Your task to perform on an android device: move a message to another label in the gmail app Image 0: 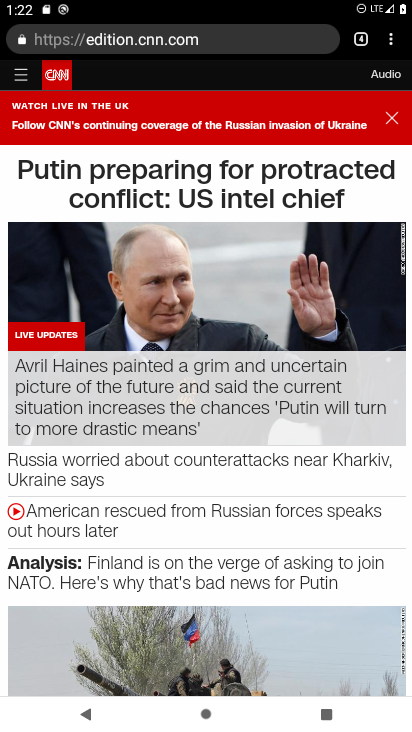
Step 0: press home button
Your task to perform on an android device: move a message to another label in the gmail app Image 1: 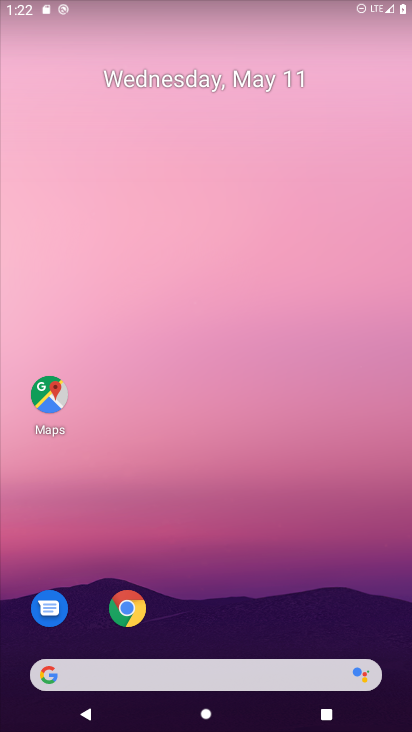
Step 1: drag from (303, 588) to (207, 56)
Your task to perform on an android device: move a message to another label in the gmail app Image 2: 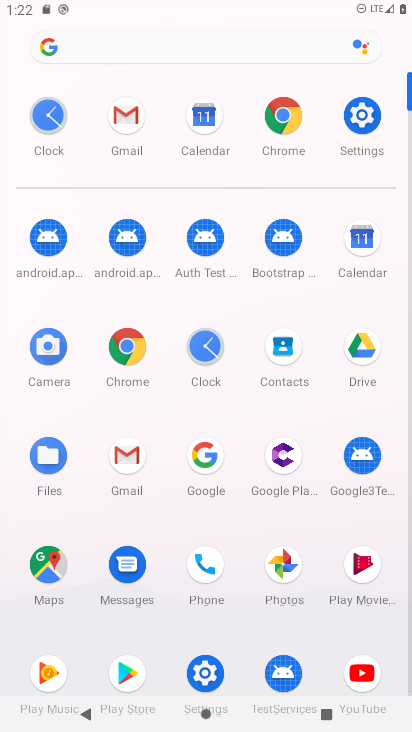
Step 2: click (133, 110)
Your task to perform on an android device: move a message to another label in the gmail app Image 3: 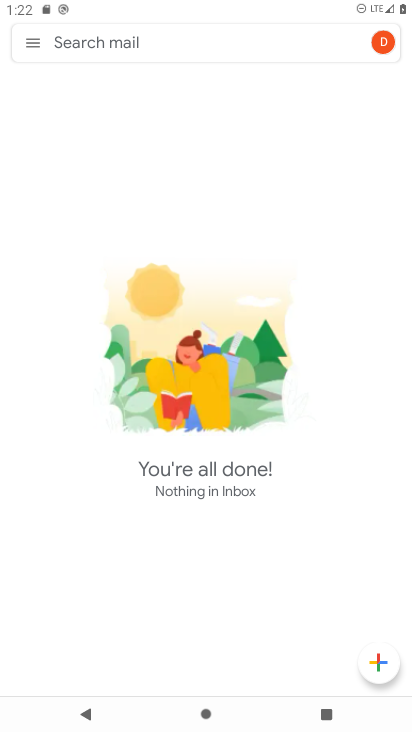
Step 3: click (25, 36)
Your task to perform on an android device: move a message to another label in the gmail app Image 4: 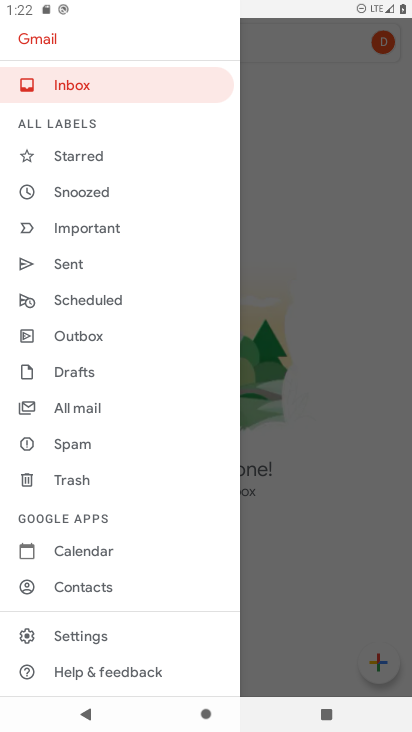
Step 4: click (106, 403)
Your task to perform on an android device: move a message to another label in the gmail app Image 5: 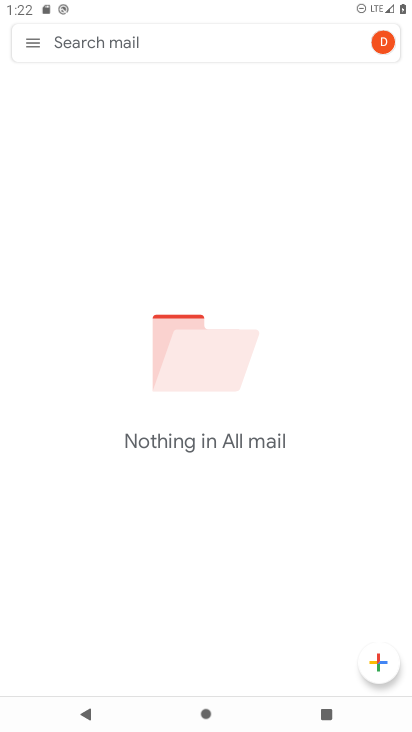
Step 5: task complete